Your task to perform on an android device: Open Youtube and go to the subscriptions tab Image 0: 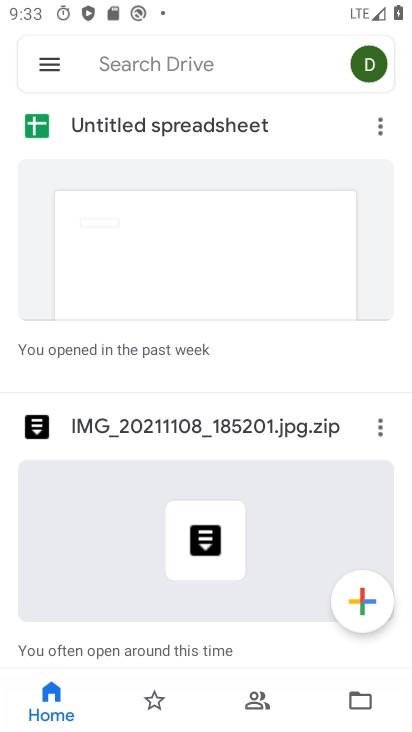
Step 0: press home button
Your task to perform on an android device: Open Youtube and go to the subscriptions tab Image 1: 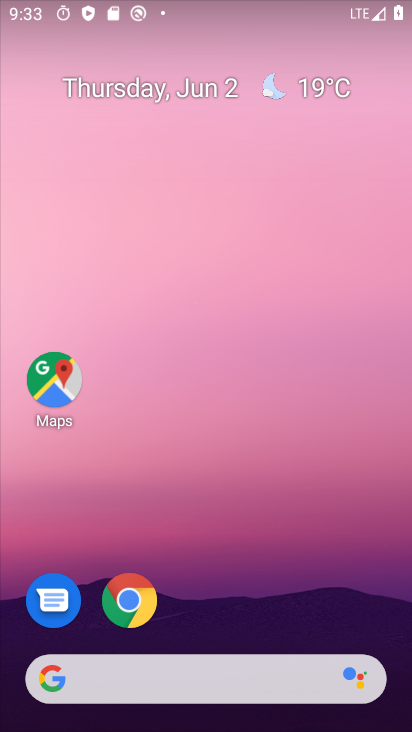
Step 1: drag from (270, 596) to (220, 383)
Your task to perform on an android device: Open Youtube and go to the subscriptions tab Image 2: 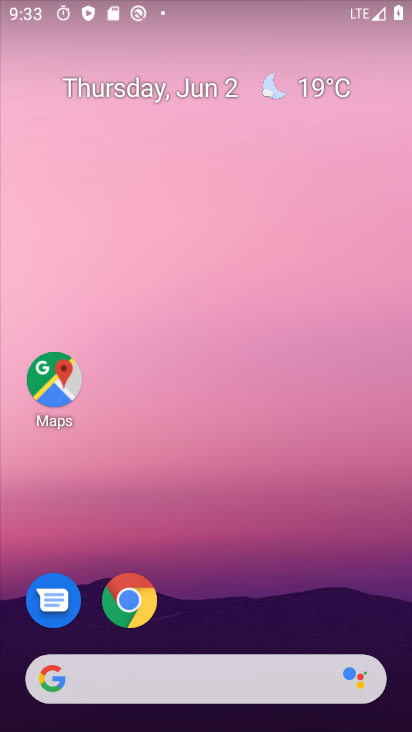
Step 2: drag from (213, 623) to (253, 60)
Your task to perform on an android device: Open Youtube and go to the subscriptions tab Image 3: 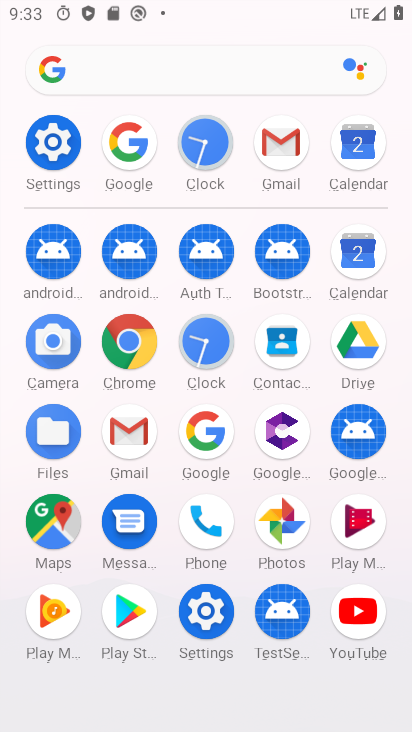
Step 3: click (366, 609)
Your task to perform on an android device: Open Youtube and go to the subscriptions tab Image 4: 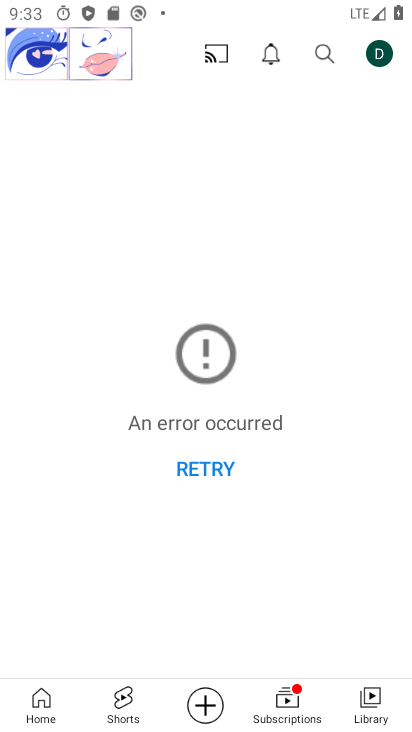
Step 4: click (300, 691)
Your task to perform on an android device: Open Youtube and go to the subscriptions tab Image 5: 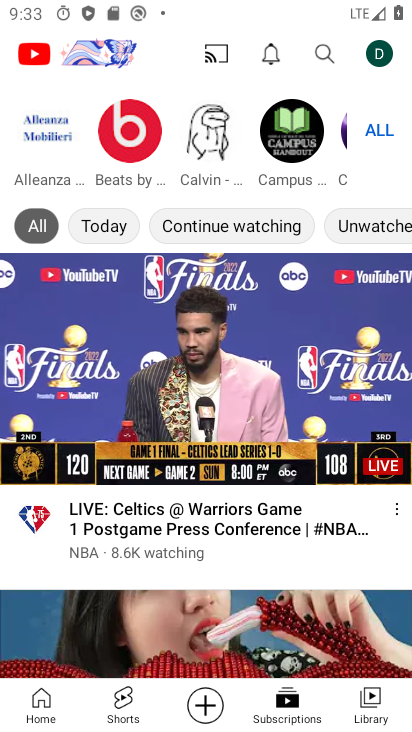
Step 5: task complete